Your task to perform on an android device: Set the phone to "Do not disturb". Image 0: 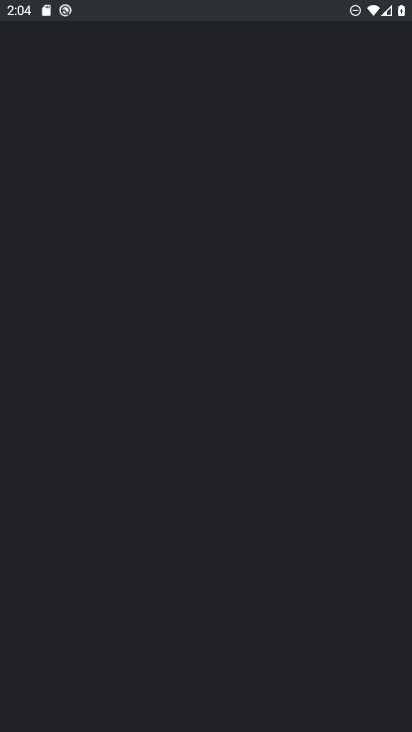
Step 0: click (371, 265)
Your task to perform on an android device: Set the phone to "Do not disturb". Image 1: 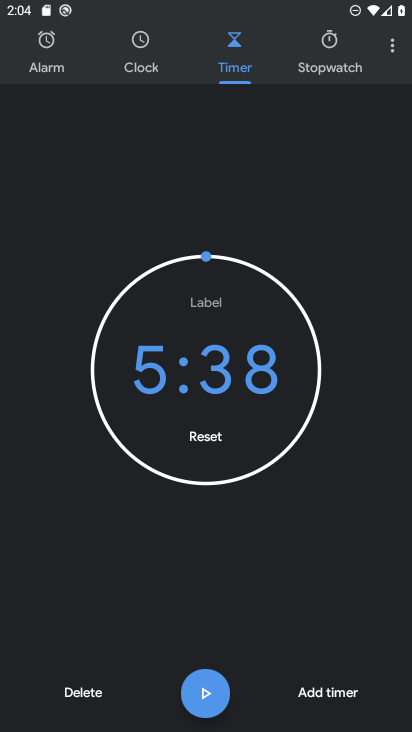
Step 1: press home button
Your task to perform on an android device: Set the phone to "Do not disturb". Image 2: 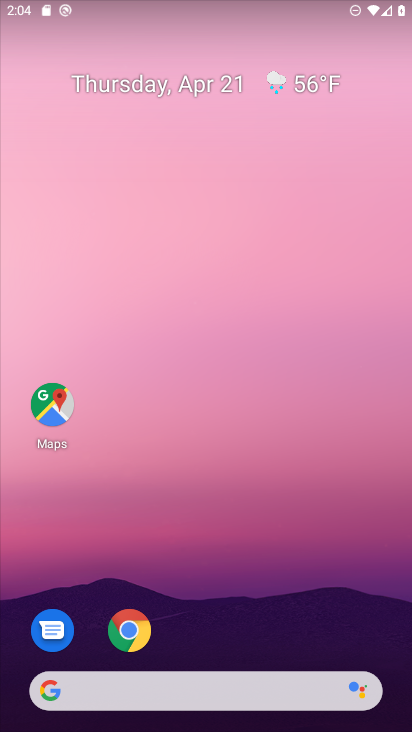
Step 2: drag from (192, 675) to (203, 2)
Your task to perform on an android device: Set the phone to "Do not disturb". Image 3: 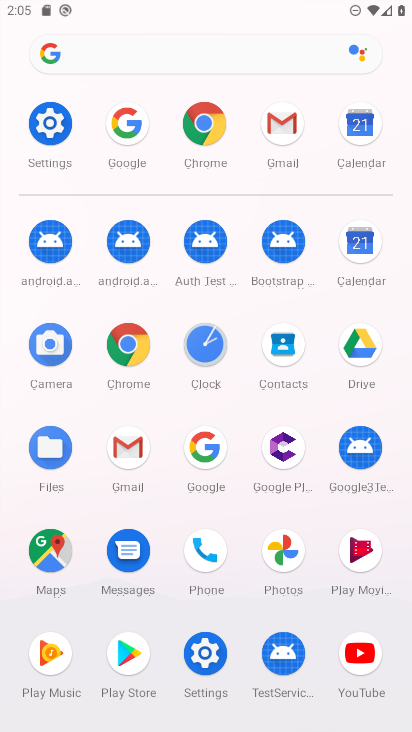
Step 3: click (197, 645)
Your task to perform on an android device: Set the phone to "Do not disturb". Image 4: 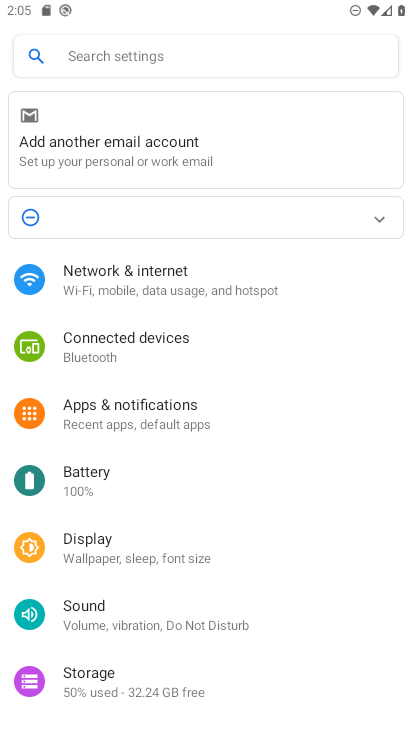
Step 4: click (133, 629)
Your task to perform on an android device: Set the phone to "Do not disturb". Image 5: 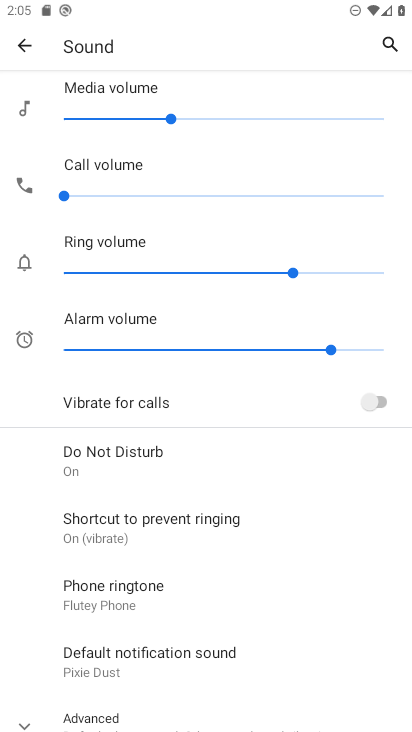
Step 5: click (173, 472)
Your task to perform on an android device: Set the phone to "Do not disturb". Image 6: 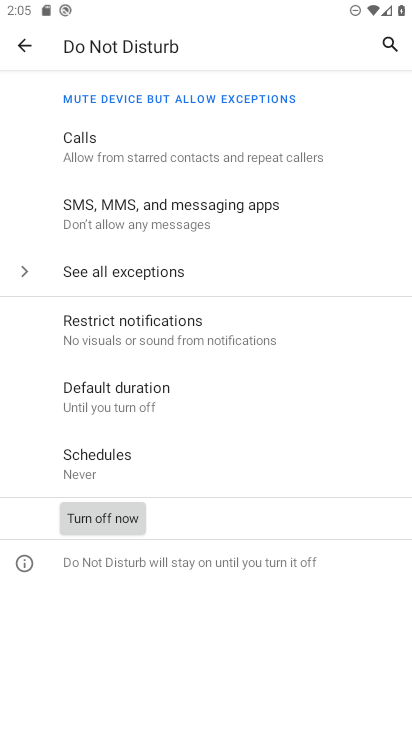
Step 6: task complete